Your task to perform on an android device: visit the assistant section in the google photos Image 0: 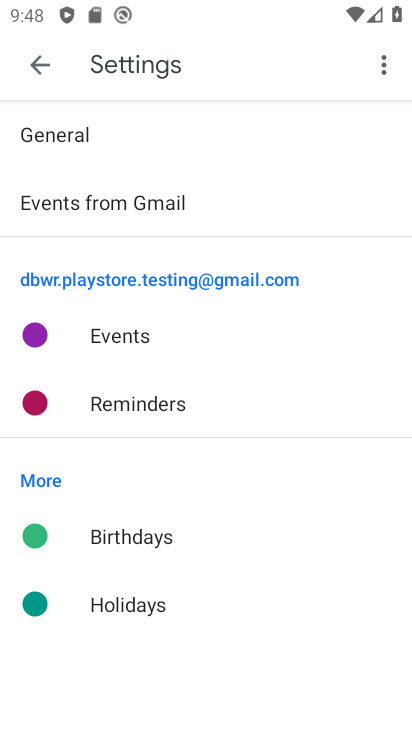
Step 0: press home button
Your task to perform on an android device: visit the assistant section in the google photos Image 1: 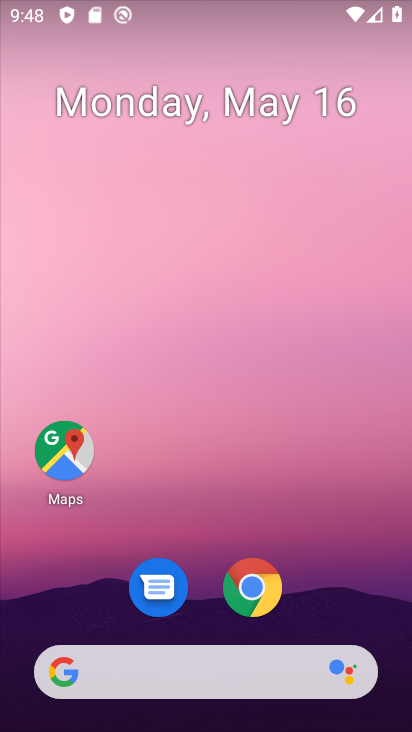
Step 1: drag from (214, 631) to (204, 118)
Your task to perform on an android device: visit the assistant section in the google photos Image 2: 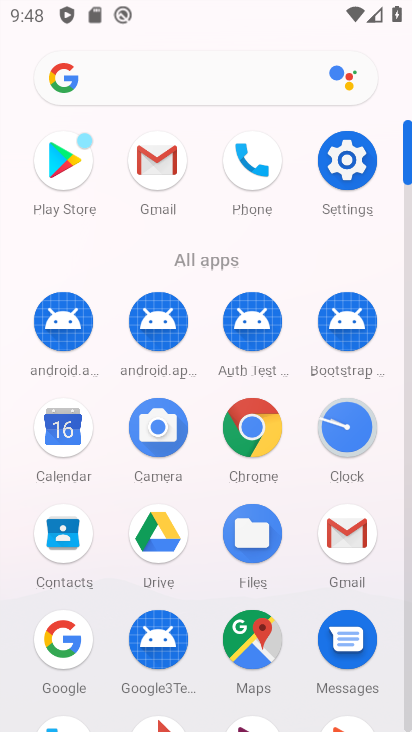
Step 2: drag from (203, 615) to (189, 263)
Your task to perform on an android device: visit the assistant section in the google photos Image 3: 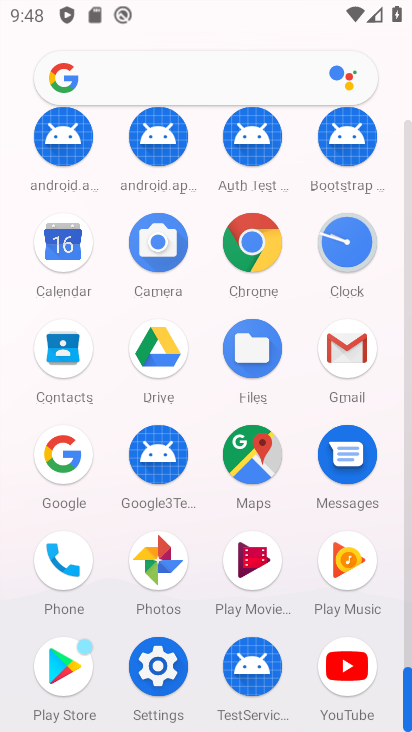
Step 3: click (181, 564)
Your task to perform on an android device: visit the assistant section in the google photos Image 4: 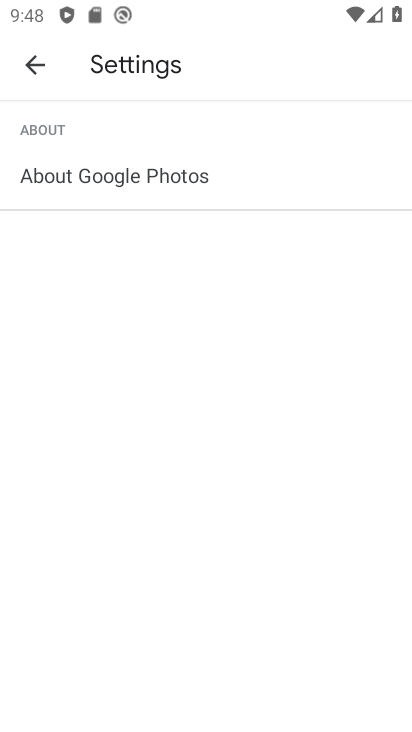
Step 4: click (28, 62)
Your task to perform on an android device: visit the assistant section in the google photos Image 5: 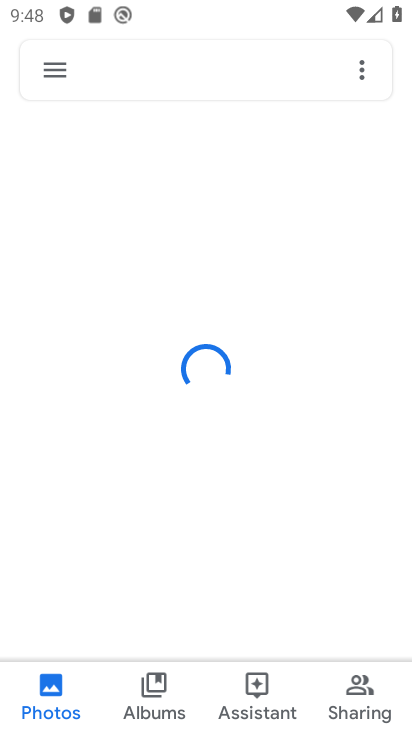
Step 5: click (241, 698)
Your task to perform on an android device: visit the assistant section in the google photos Image 6: 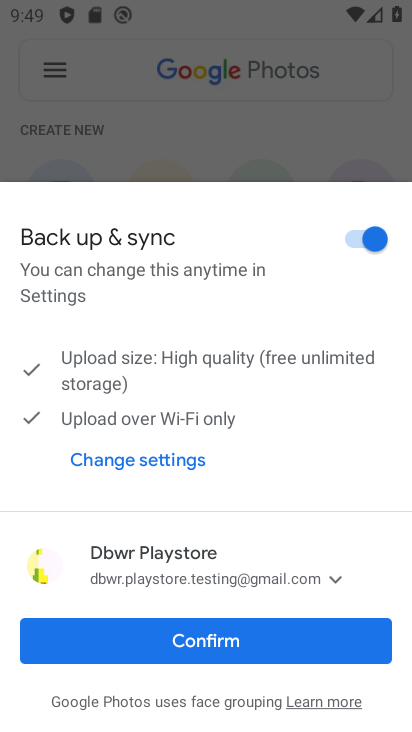
Step 6: click (228, 642)
Your task to perform on an android device: visit the assistant section in the google photos Image 7: 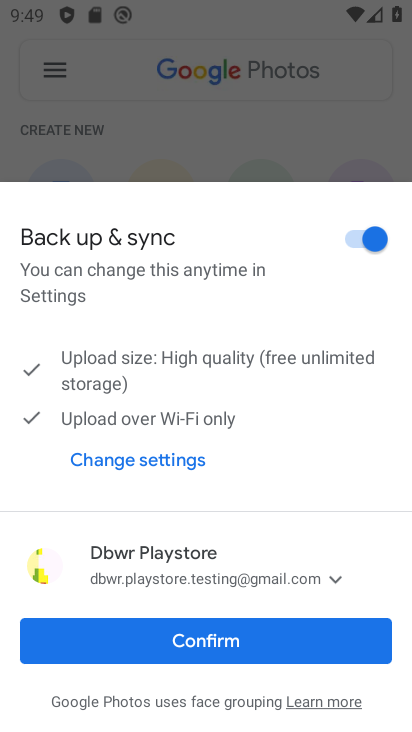
Step 7: click (228, 642)
Your task to perform on an android device: visit the assistant section in the google photos Image 8: 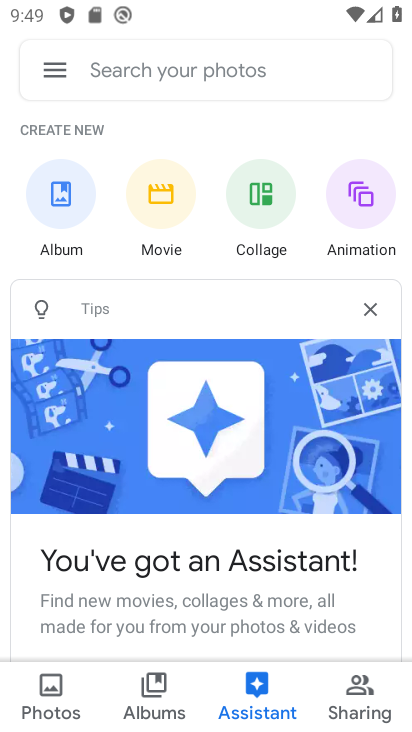
Step 8: task complete